Your task to perform on an android device: Go to privacy settings Image 0: 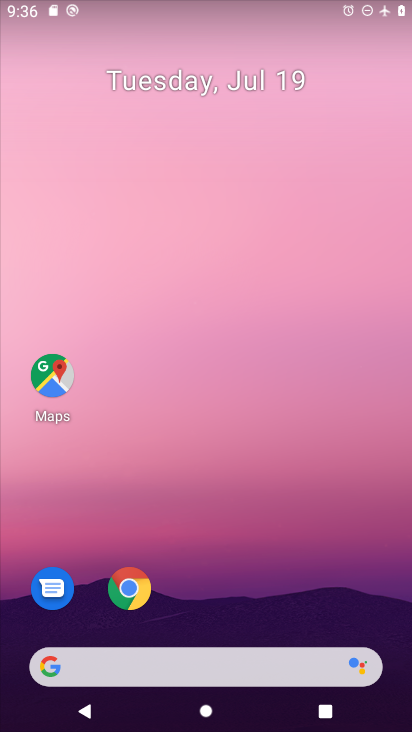
Step 0: drag from (354, 575) to (383, 199)
Your task to perform on an android device: Go to privacy settings Image 1: 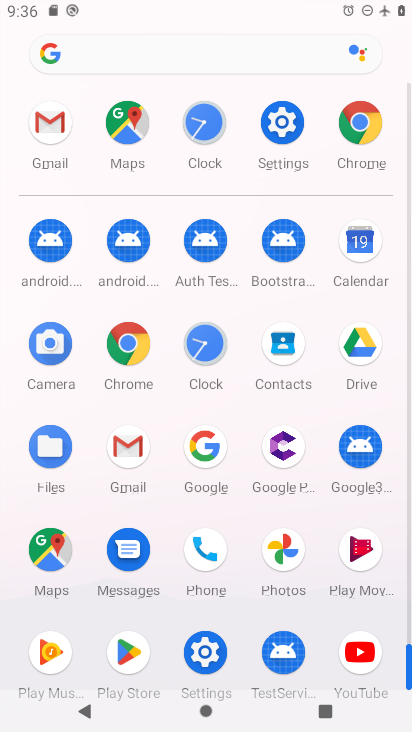
Step 1: click (212, 653)
Your task to perform on an android device: Go to privacy settings Image 2: 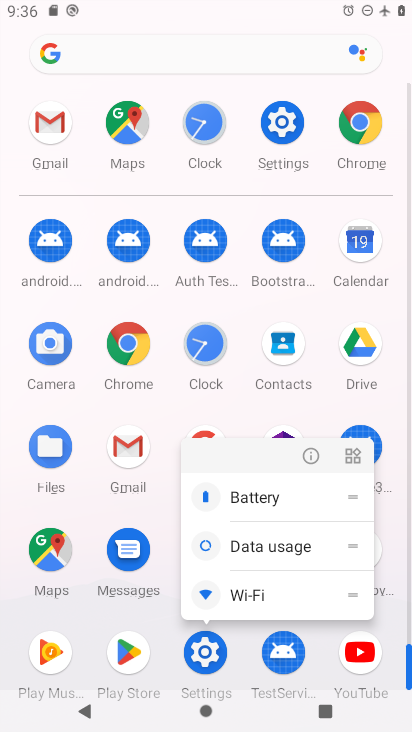
Step 2: click (201, 638)
Your task to perform on an android device: Go to privacy settings Image 3: 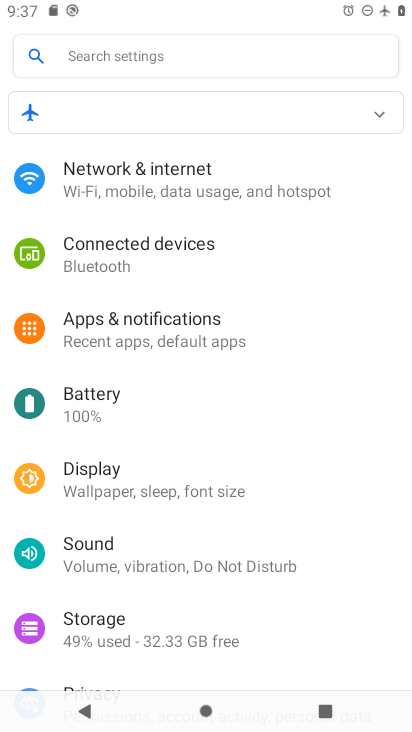
Step 3: drag from (304, 276) to (329, 396)
Your task to perform on an android device: Go to privacy settings Image 4: 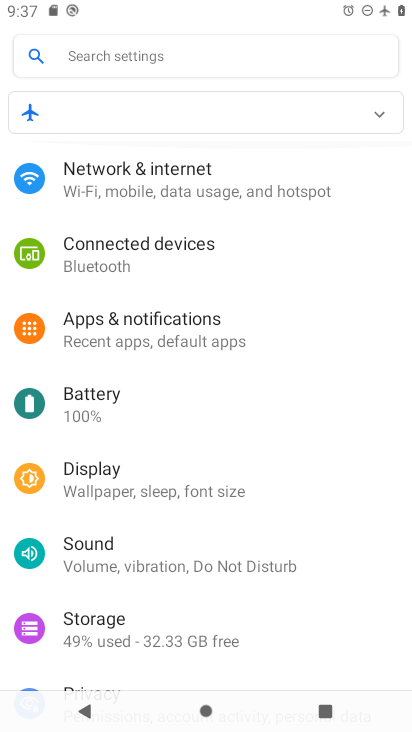
Step 4: drag from (358, 495) to (366, 435)
Your task to perform on an android device: Go to privacy settings Image 5: 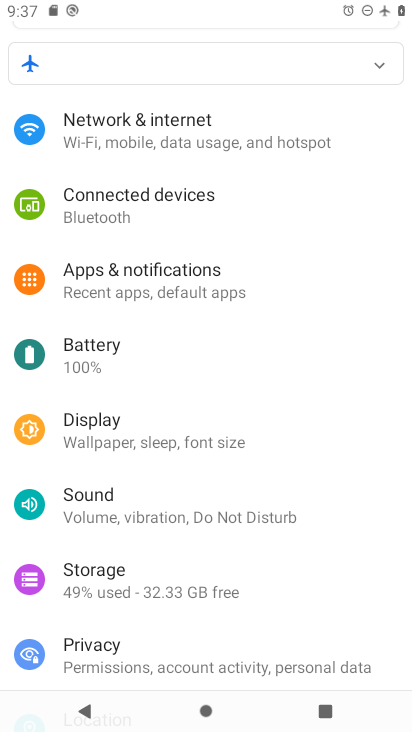
Step 5: drag from (383, 516) to (387, 455)
Your task to perform on an android device: Go to privacy settings Image 6: 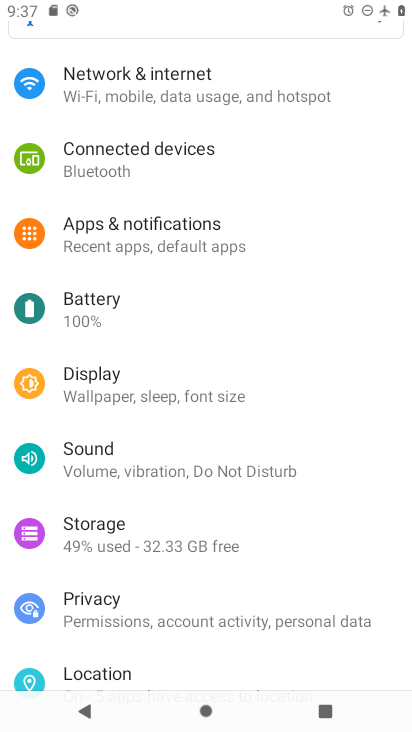
Step 6: drag from (382, 544) to (379, 452)
Your task to perform on an android device: Go to privacy settings Image 7: 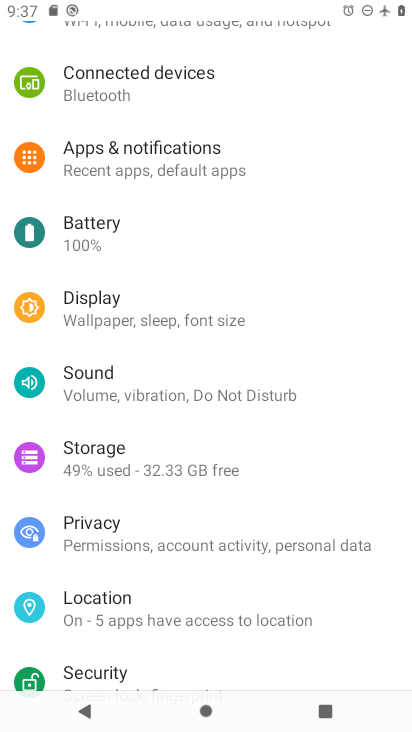
Step 7: drag from (328, 591) to (327, 481)
Your task to perform on an android device: Go to privacy settings Image 8: 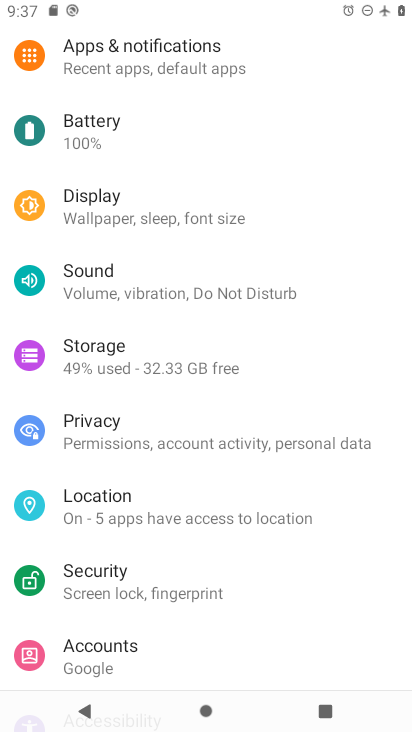
Step 8: click (327, 449)
Your task to perform on an android device: Go to privacy settings Image 9: 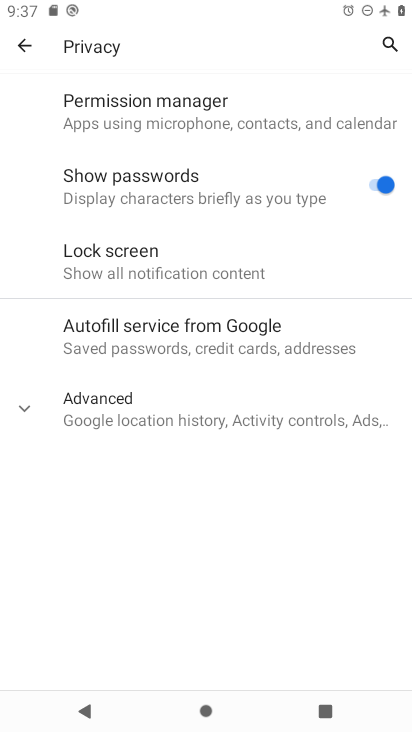
Step 9: click (325, 405)
Your task to perform on an android device: Go to privacy settings Image 10: 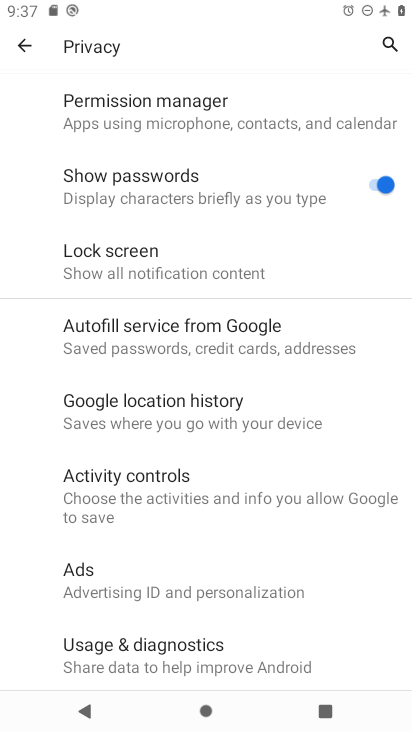
Step 10: task complete